Your task to perform on an android device: turn off sleep mode Image 0: 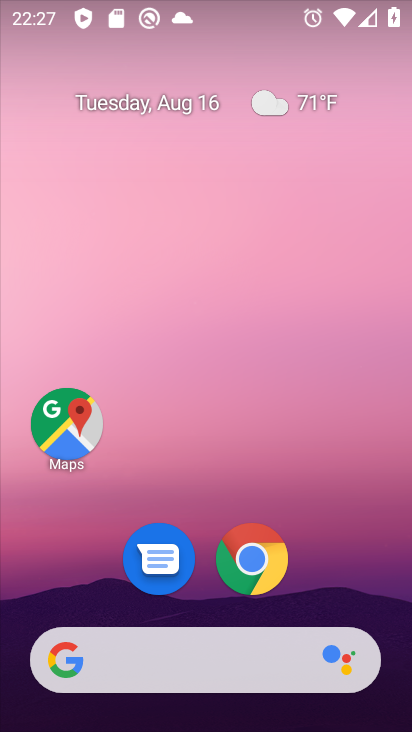
Step 0: drag from (203, 669) to (248, 111)
Your task to perform on an android device: turn off sleep mode Image 1: 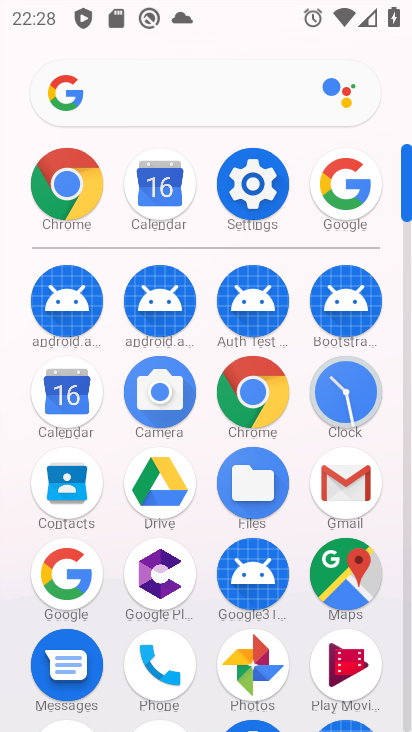
Step 1: click (253, 183)
Your task to perform on an android device: turn off sleep mode Image 2: 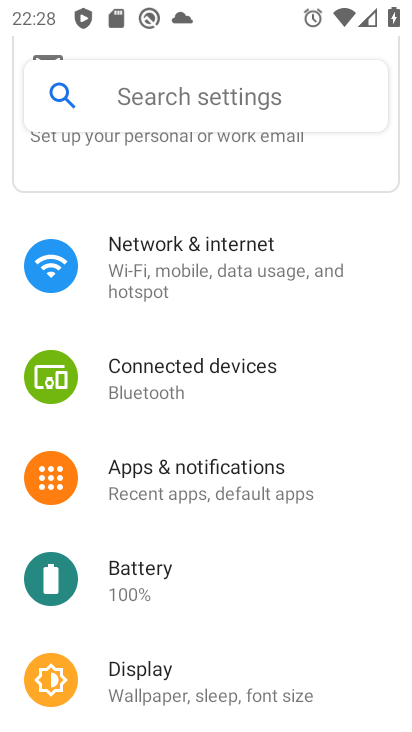
Step 2: click (152, 698)
Your task to perform on an android device: turn off sleep mode Image 3: 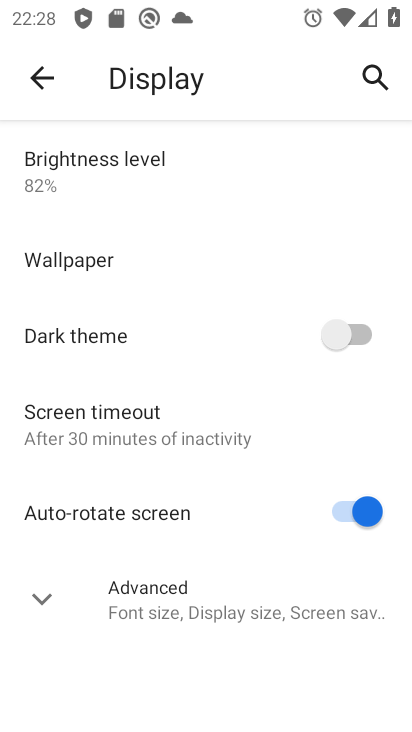
Step 3: click (59, 174)
Your task to perform on an android device: turn off sleep mode Image 4: 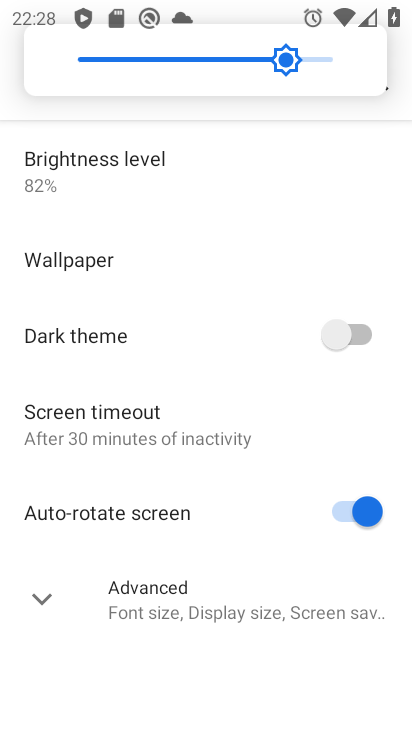
Step 4: click (93, 273)
Your task to perform on an android device: turn off sleep mode Image 5: 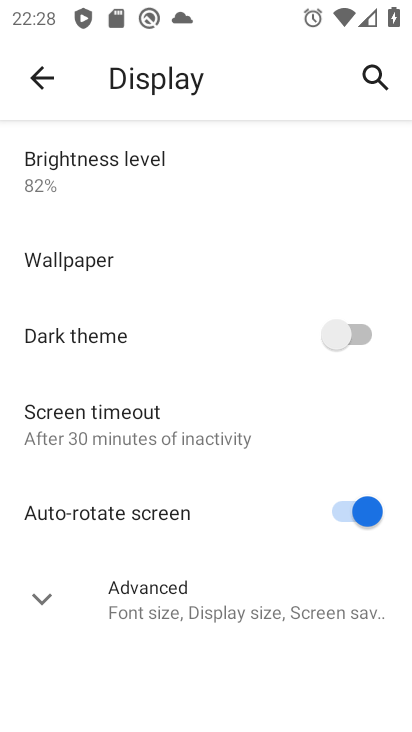
Step 5: click (98, 269)
Your task to perform on an android device: turn off sleep mode Image 6: 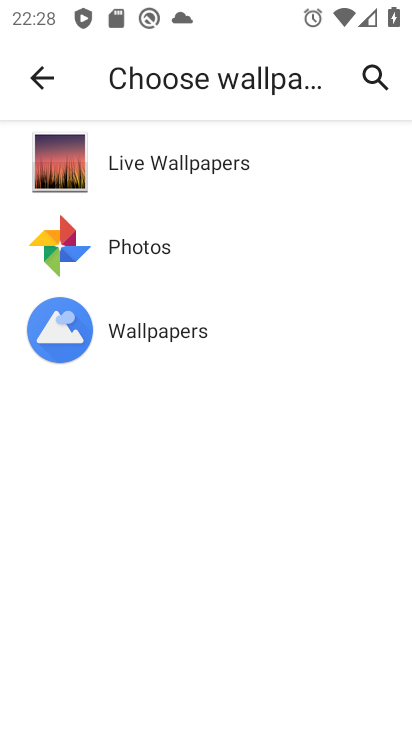
Step 6: press back button
Your task to perform on an android device: turn off sleep mode Image 7: 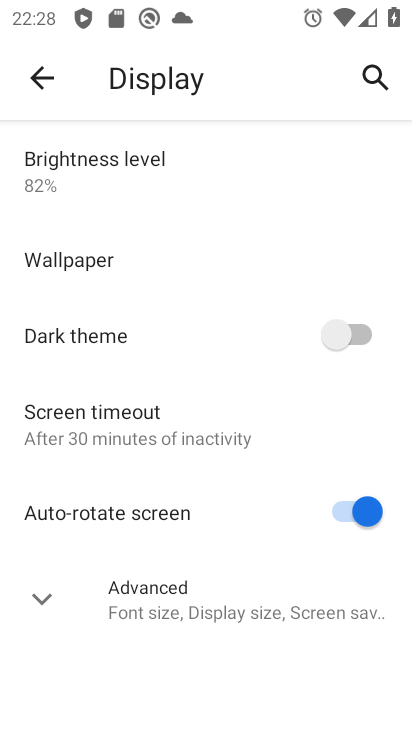
Step 7: click (127, 425)
Your task to perform on an android device: turn off sleep mode Image 8: 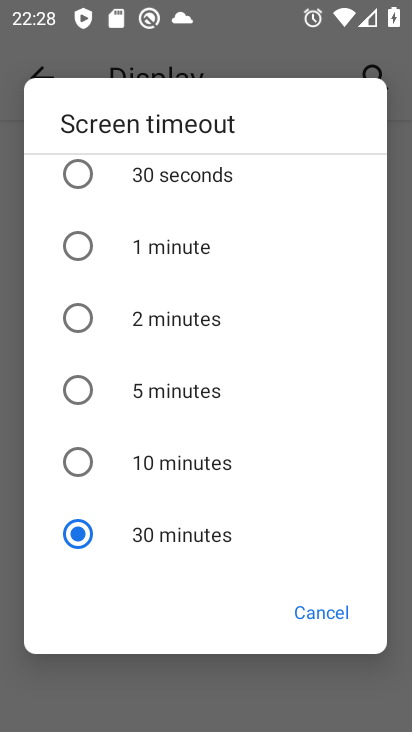
Step 8: click (320, 614)
Your task to perform on an android device: turn off sleep mode Image 9: 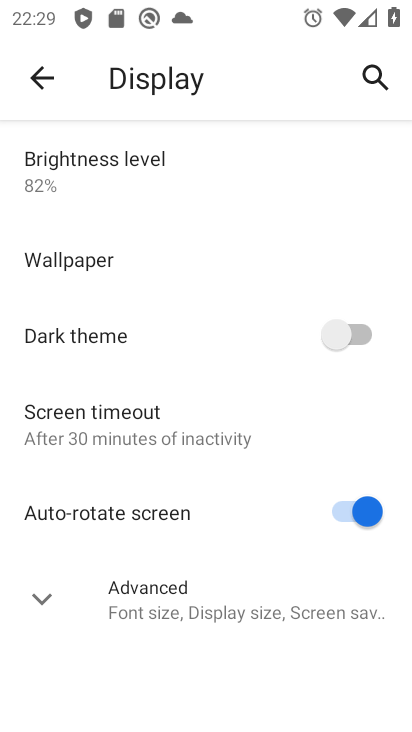
Step 9: task complete